Your task to perform on an android device: Go to accessibility settings Image 0: 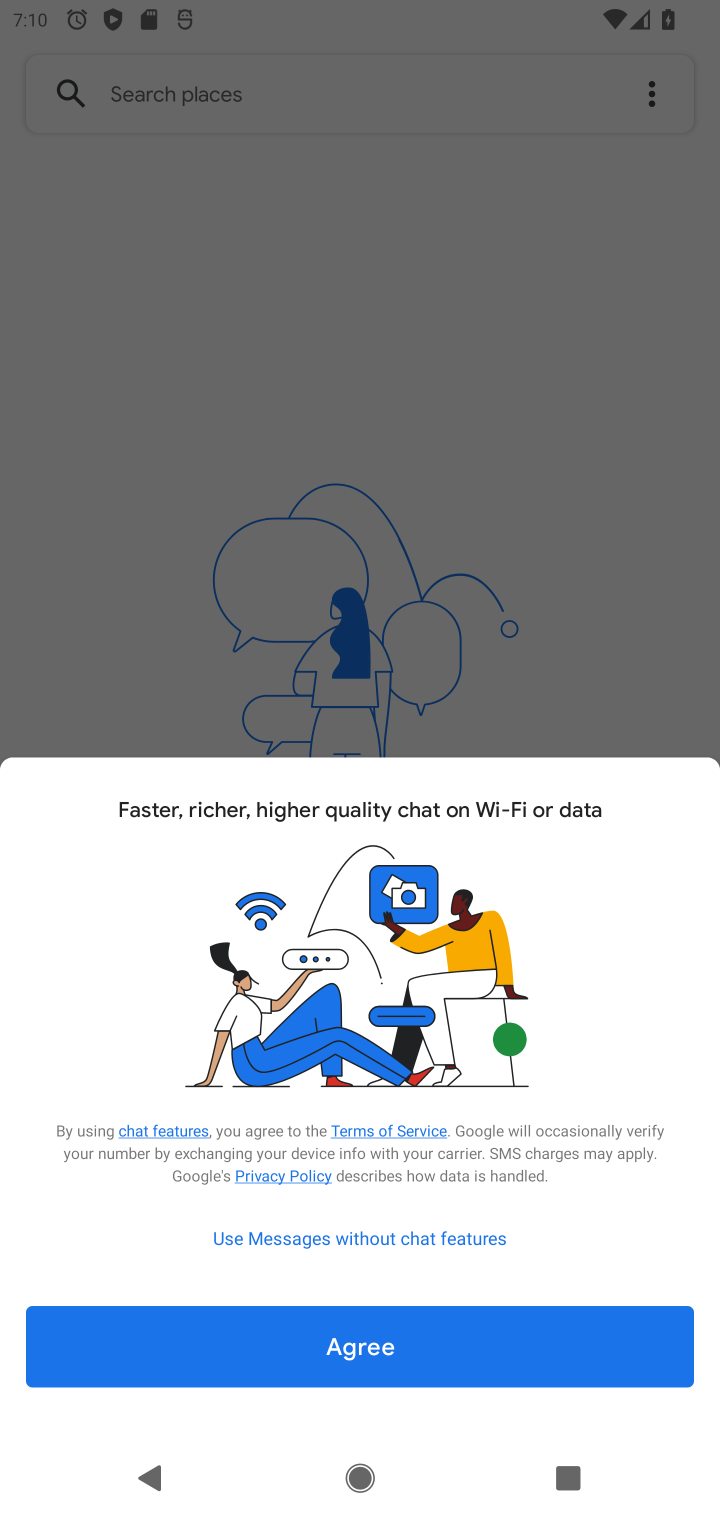
Step 0: press home button
Your task to perform on an android device: Go to accessibility settings Image 1: 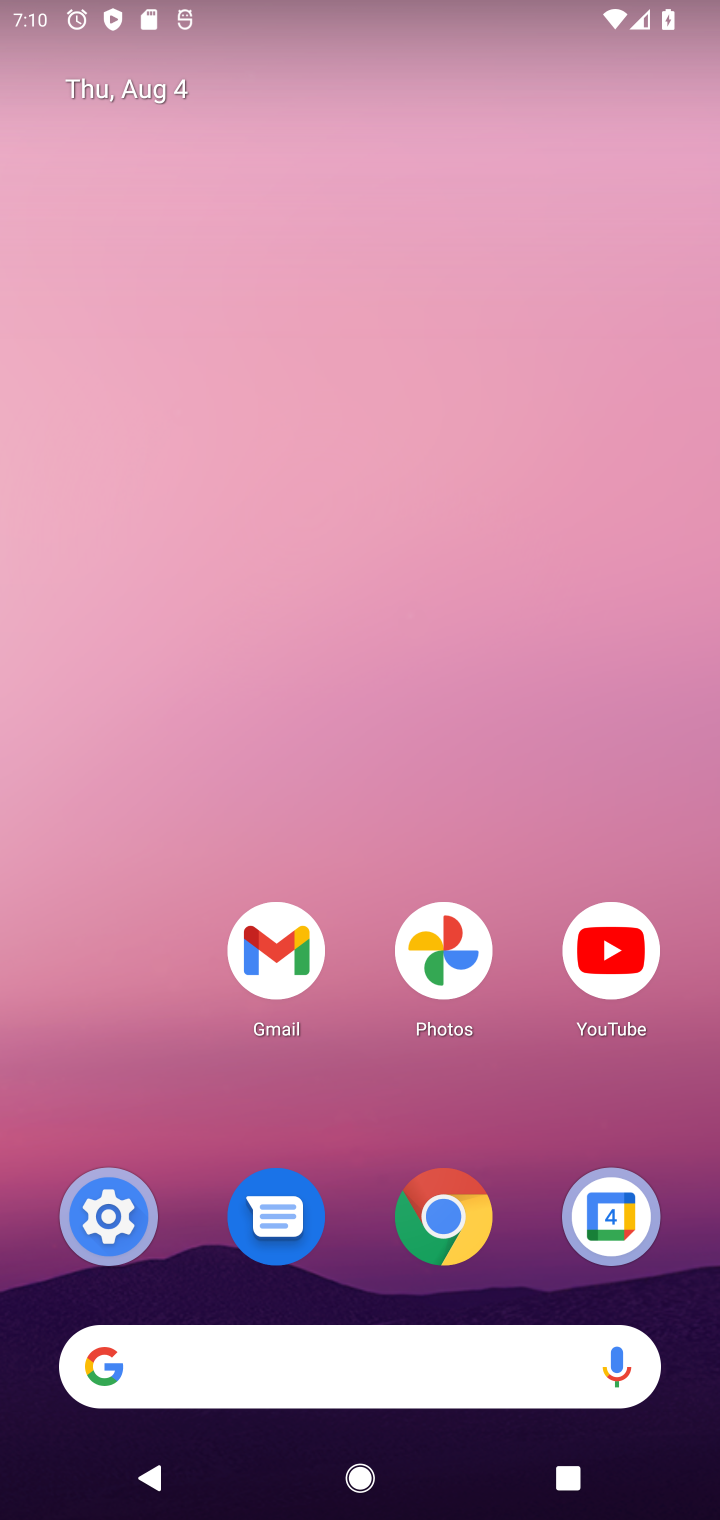
Step 1: click (130, 1202)
Your task to perform on an android device: Go to accessibility settings Image 2: 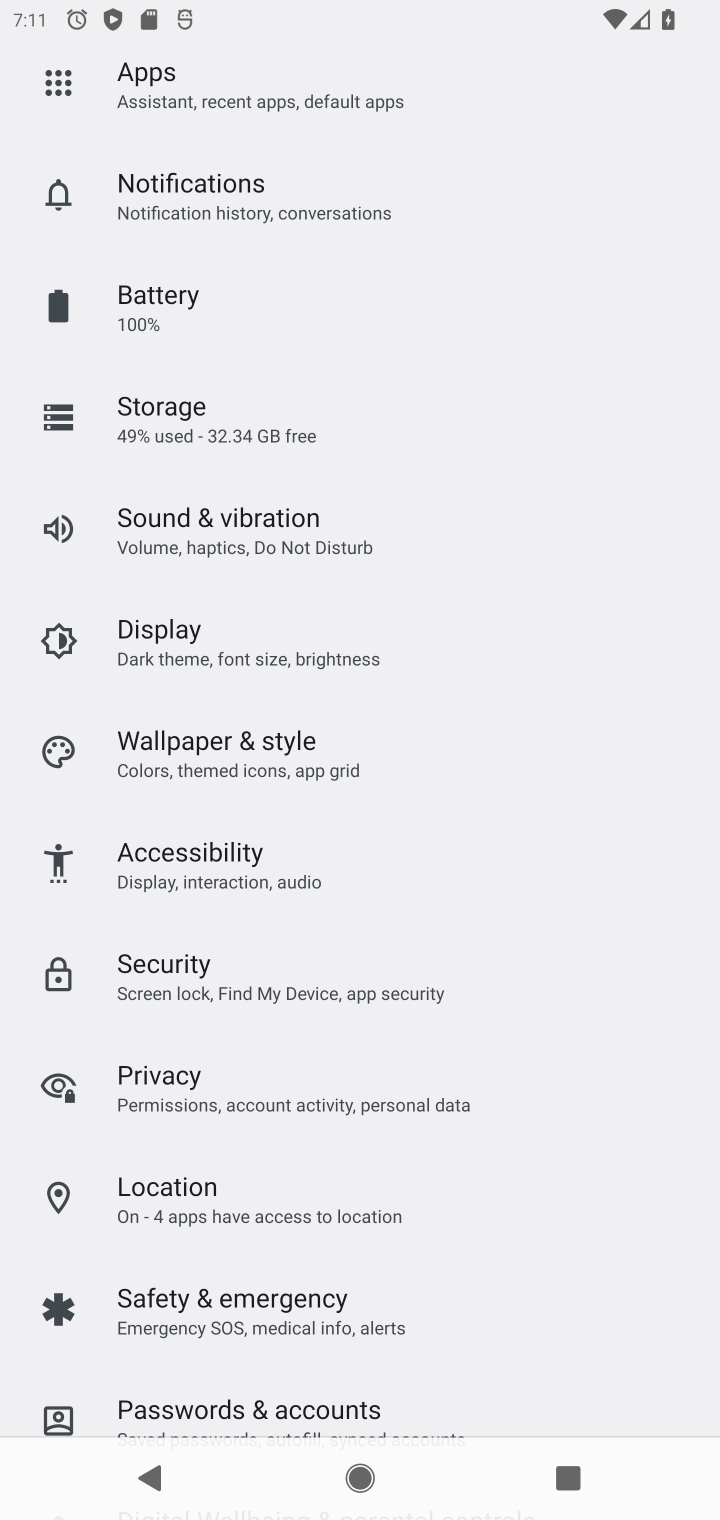
Step 2: click (297, 856)
Your task to perform on an android device: Go to accessibility settings Image 3: 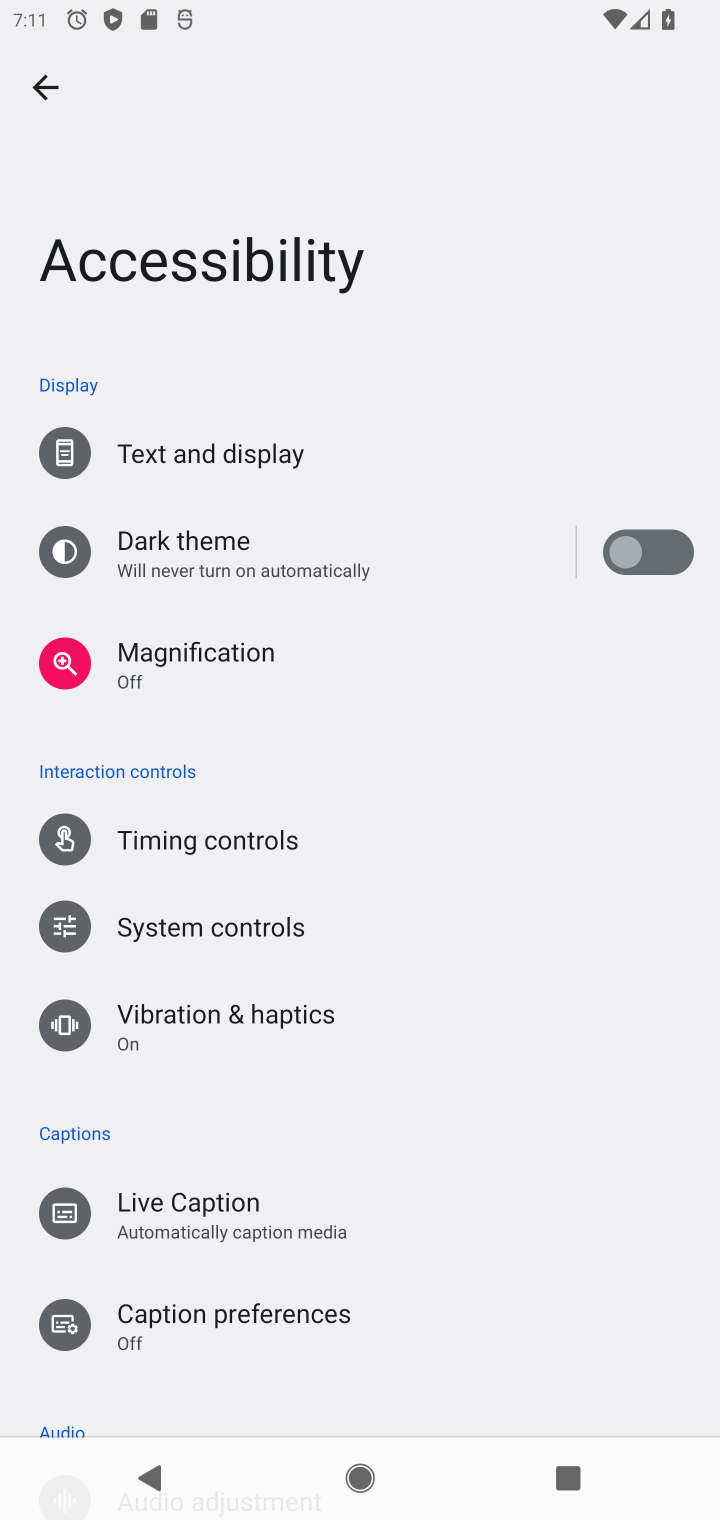
Step 3: task complete